Your task to perform on an android device: uninstall "Microsoft Authenticator" Image 0: 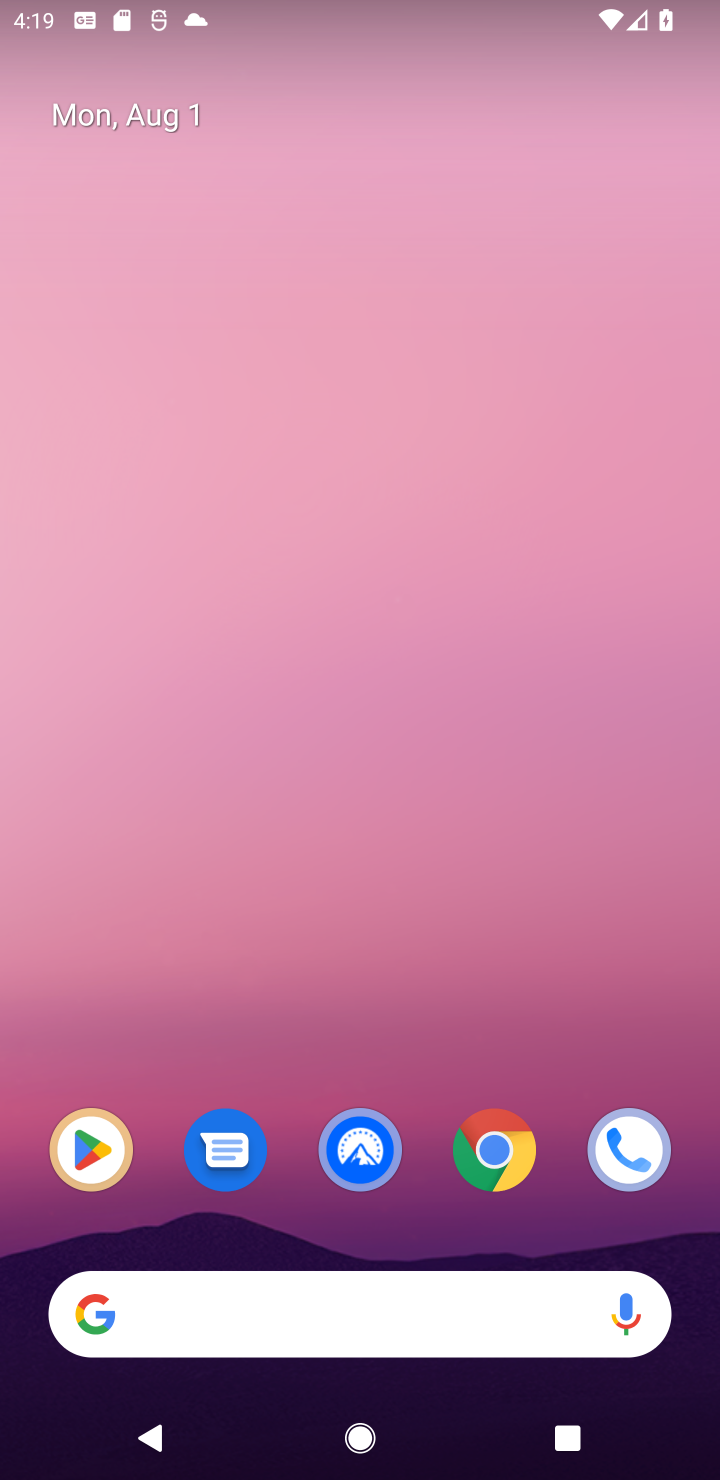
Step 0: task impossible